Your task to perform on an android device: Do I have any events this weekend? Image 0: 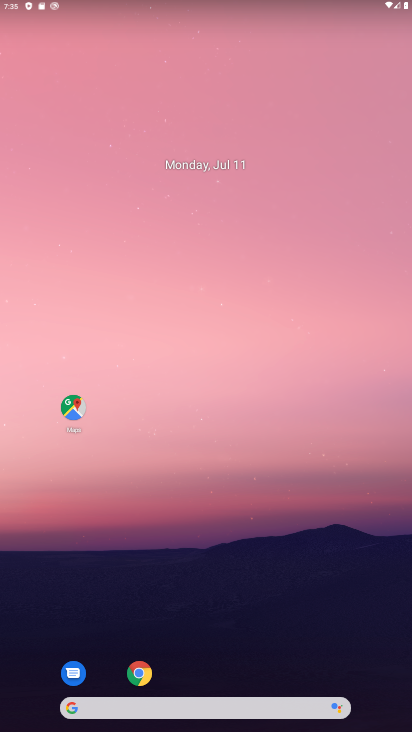
Step 0: drag from (316, 635) to (237, 218)
Your task to perform on an android device: Do I have any events this weekend? Image 1: 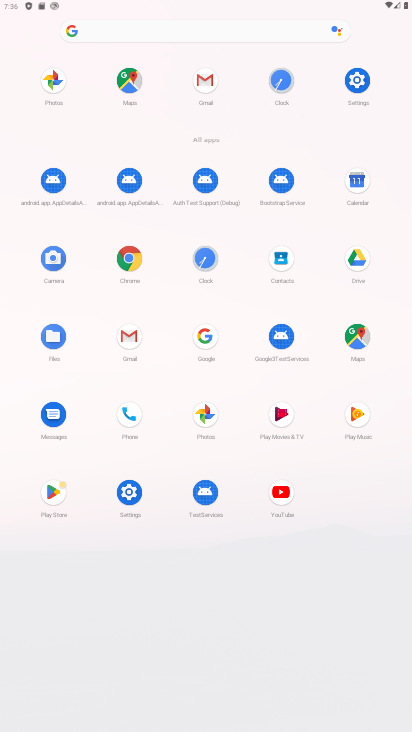
Step 1: click (361, 178)
Your task to perform on an android device: Do I have any events this weekend? Image 2: 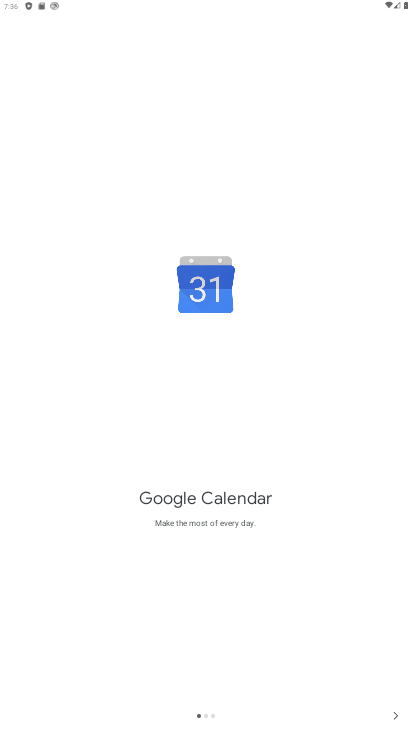
Step 2: click (397, 716)
Your task to perform on an android device: Do I have any events this weekend? Image 3: 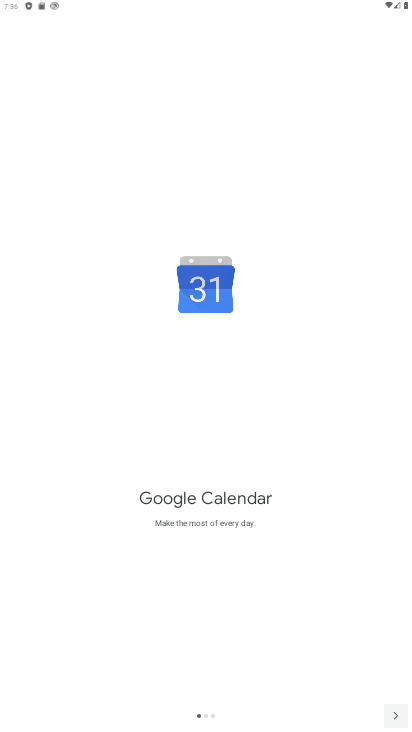
Step 3: click (397, 716)
Your task to perform on an android device: Do I have any events this weekend? Image 4: 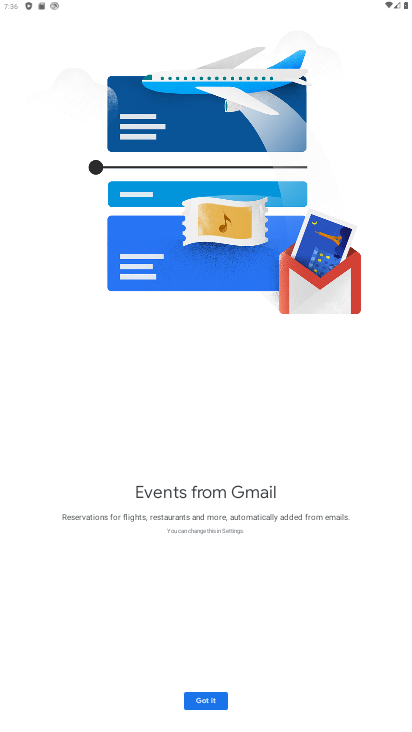
Step 4: click (397, 716)
Your task to perform on an android device: Do I have any events this weekend? Image 5: 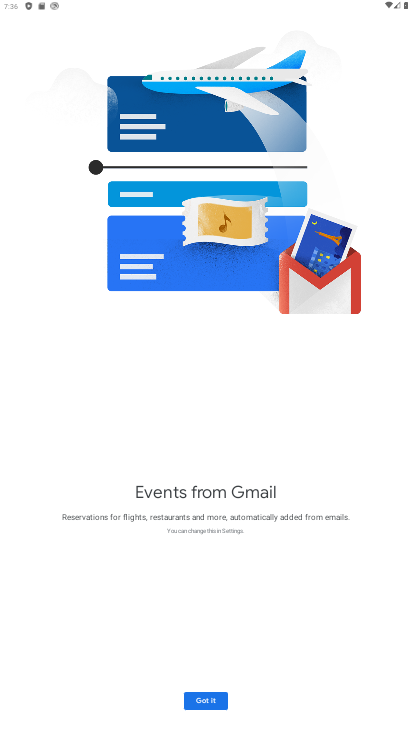
Step 5: click (206, 696)
Your task to perform on an android device: Do I have any events this weekend? Image 6: 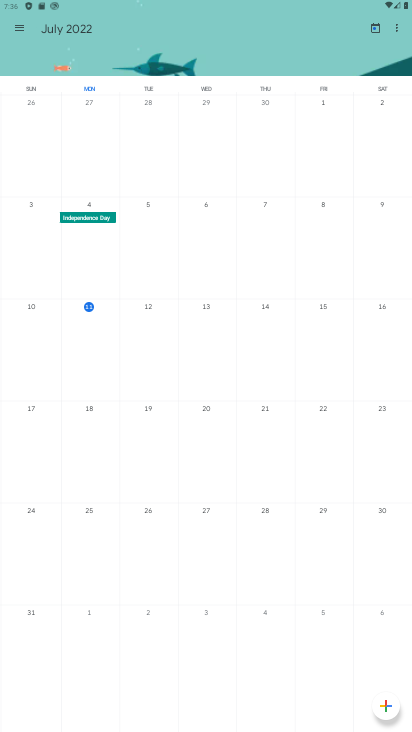
Step 6: click (18, 26)
Your task to perform on an android device: Do I have any events this weekend? Image 7: 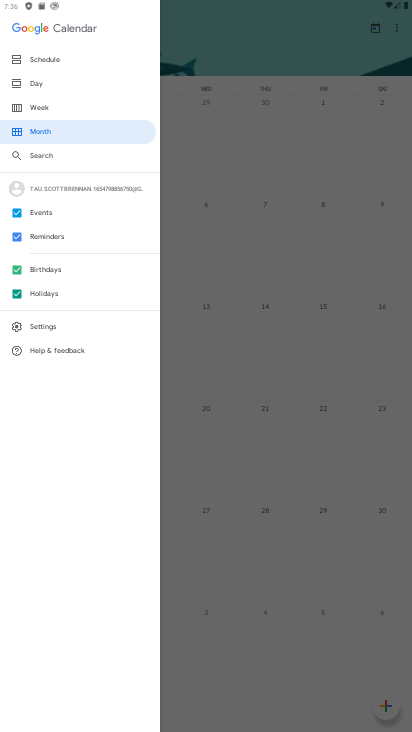
Step 7: click (235, 130)
Your task to perform on an android device: Do I have any events this weekend? Image 8: 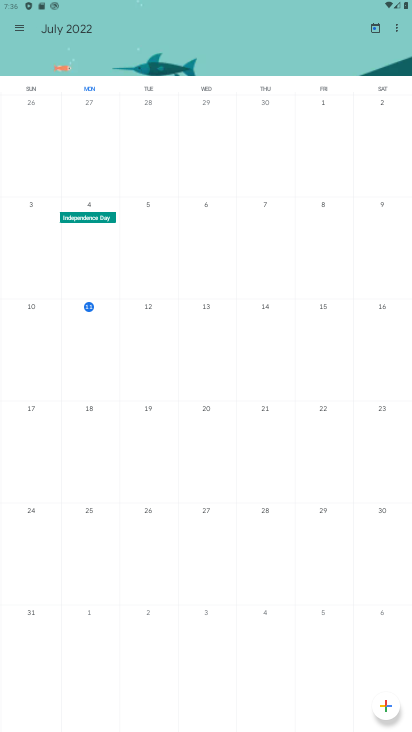
Step 8: click (383, 301)
Your task to perform on an android device: Do I have any events this weekend? Image 9: 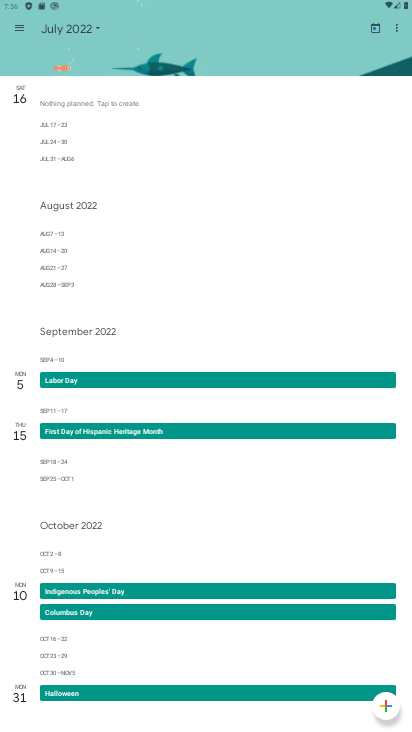
Step 9: click (19, 27)
Your task to perform on an android device: Do I have any events this weekend? Image 10: 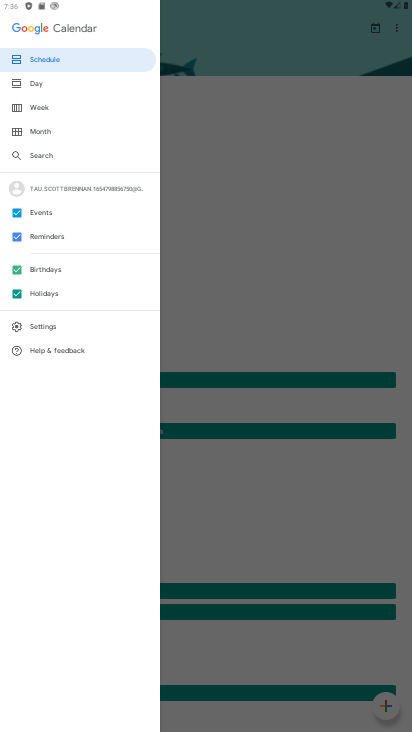
Step 10: click (48, 111)
Your task to perform on an android device: Do I have any events this weekend? Image 11: 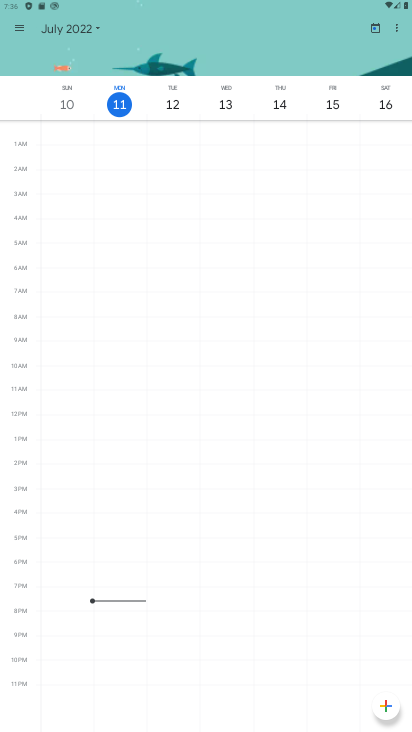
Step 11: click (390, 104)
Your task to perform on an android device: Do I have any events this weekend? Image 12: 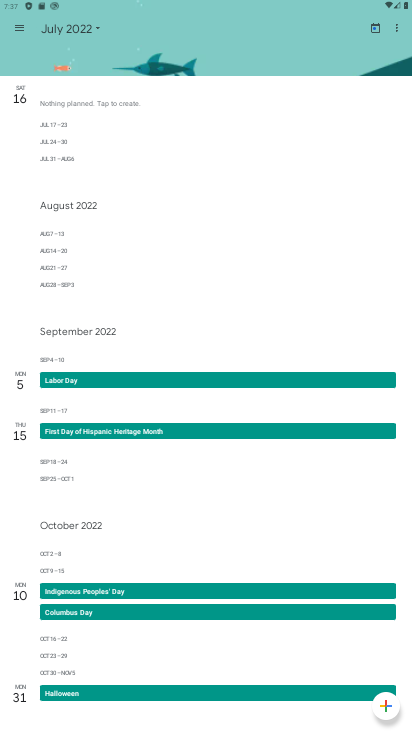
Step 12: click (17, 30)
Your task to perform on an android device: Do I have any events this weekend? Image 13: 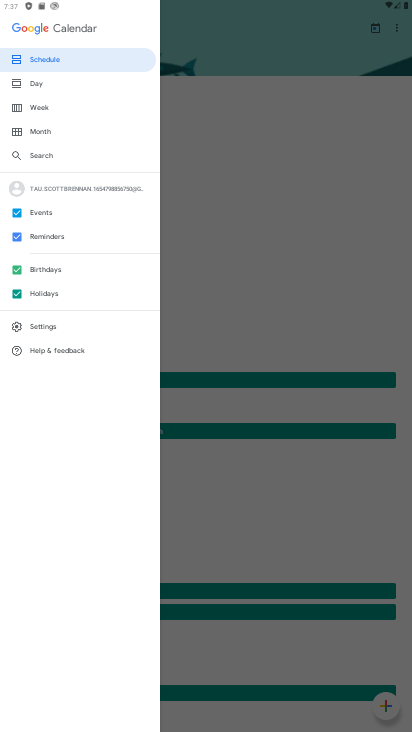
Step 13: click (36, 80)
Your task to perform on an android device: Do I have any events this weekend? Image 14: 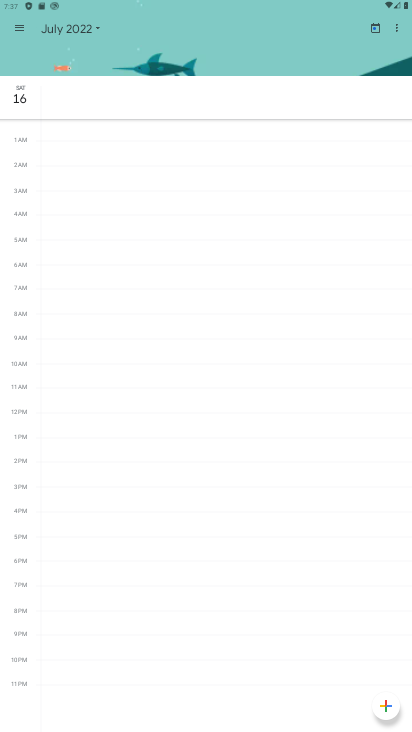
Step 14: task complete